Your task to perform on an android device: change keyboard looks Image 0: 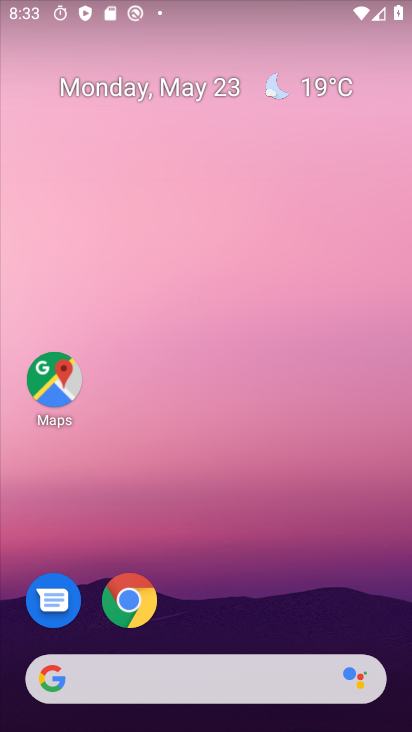
Step 0: drag from (28, 603) to (250, 134)
Your task to perform on an android device: change keyboard looks Image 1: 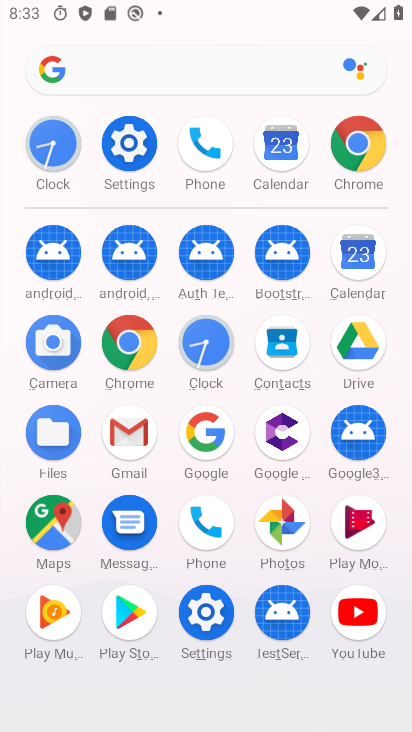
Step 1: click (138, 154)
Your task to perform on an android device: change keyboard looks Image 2: 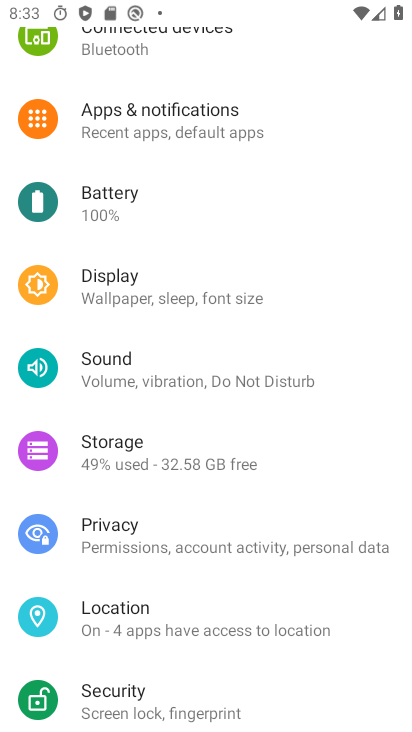
Step 2: drag from (60, 677) to (334, 123)
Your task to perform on an android device: change keyboard looks Image 3: 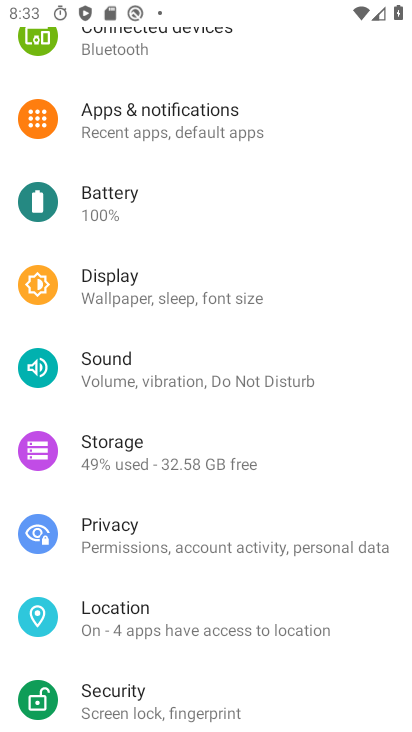
Step 3: drag from (144, 690) to (340, 203)
Your task to perform on an android device: change keyboard looks Image 4: 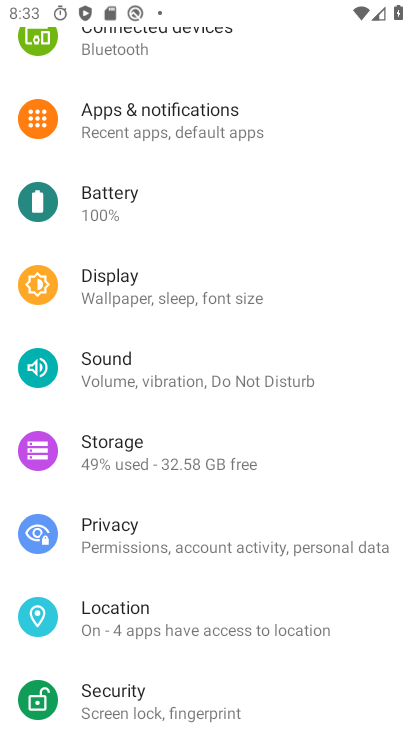
Step 4: drag from (118, 715) to (305, 152)
Your task to perform on an android device: change keyboard looks Image 5: 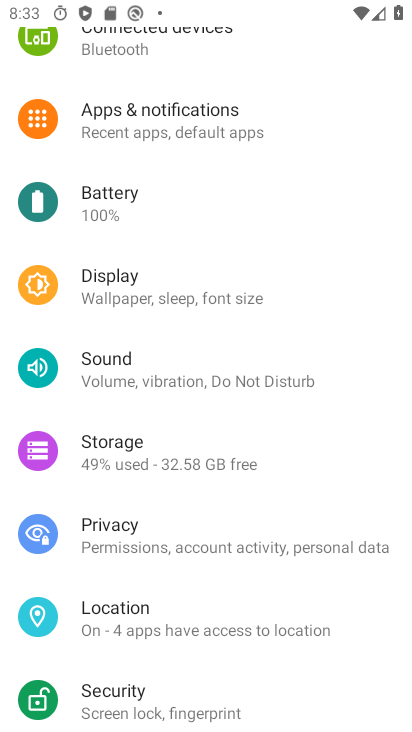
Step 5: drag from (277, 133) to (192, 556)
Your task to perform on an android device: change keyboard looks Image 6: 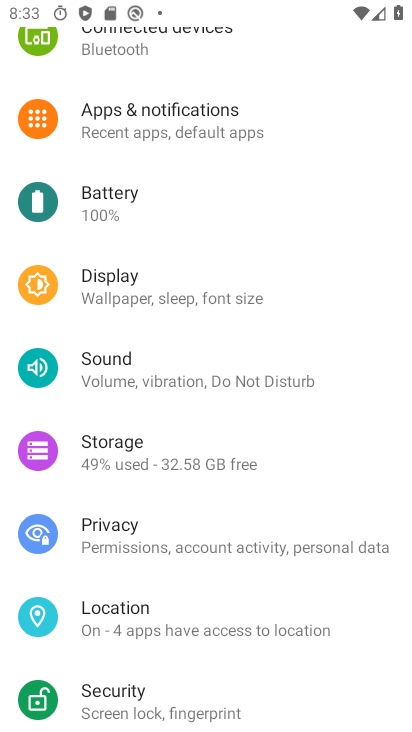
Step 6: drag from (130, 678) to (292, 170)
Your task to perform on an android device: change keyboard looks Image 7: 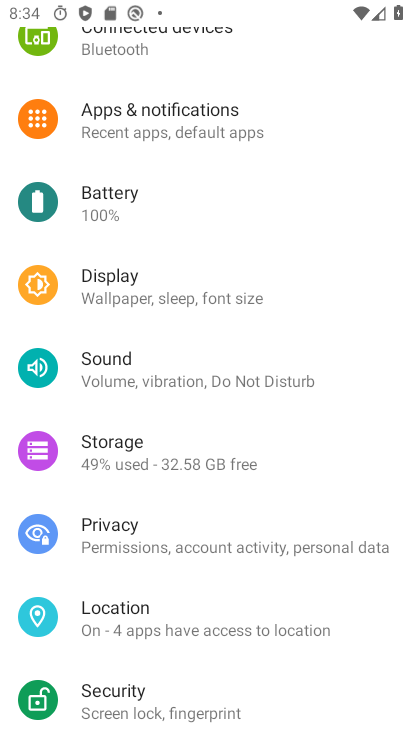
Step 7: drag from (19, 715) to (318, 135)
Your task to perform on an android device: change keyboard looks Image 8: 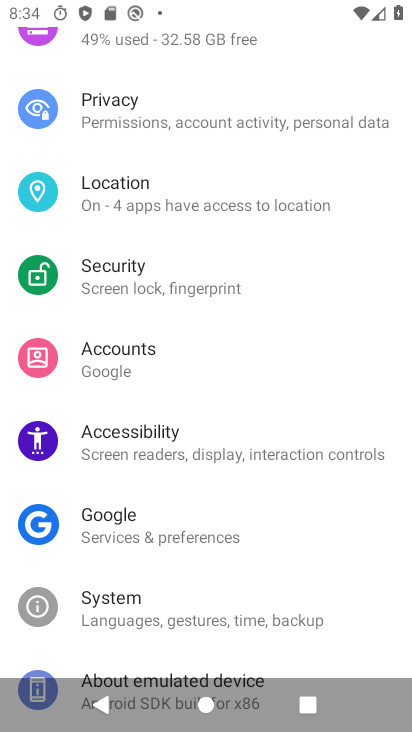
Step 8: click (136, 634)
Your task to perform on an android device: change keyboard looks Image 9: 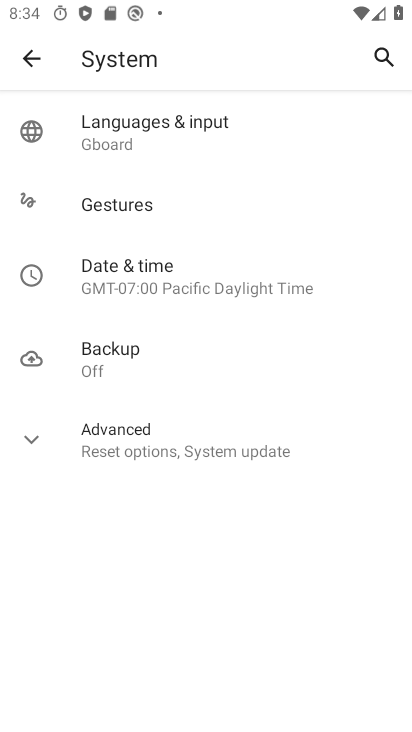
Step 9: click (208, 135)
Your task to perform on an android device: change keyboard looks Image 10: 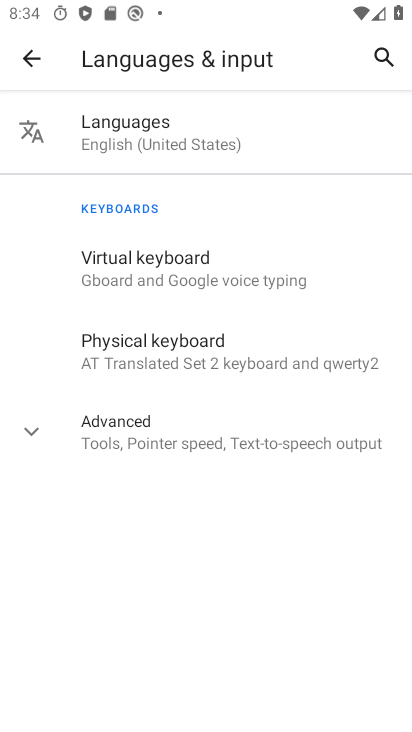
Step 10: click (196, 341)
Your task to perform on an android device: change keyboard looks Image 11: 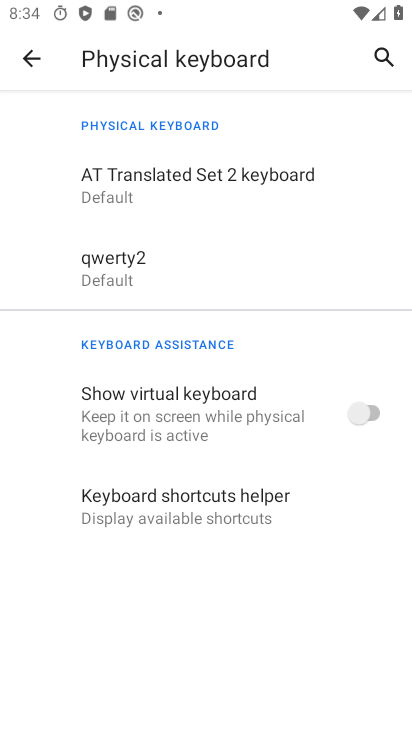
Step 11: press back button
Your task to perform on an android device: change keyboard looks Image 12: 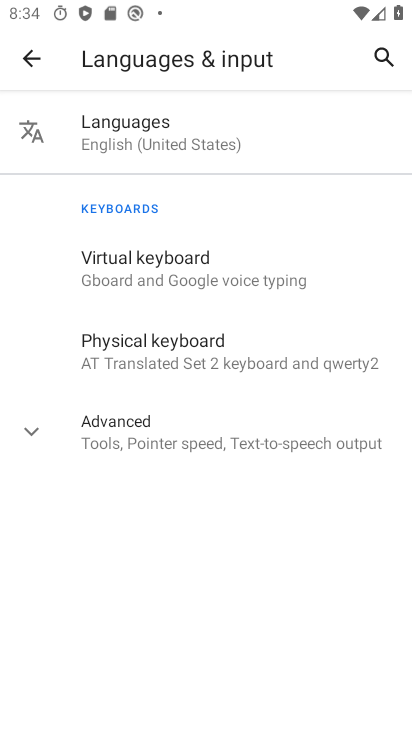
Step 12: click (209, 258)
Your task to perform on an android device: change keyboard looks Image 13: 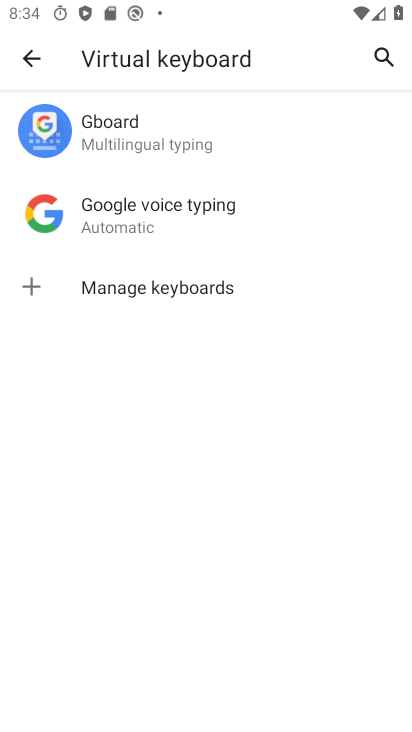
Step 13: click (194, 126)
Your task to perform on an android device: change keyboard looks Image 14: 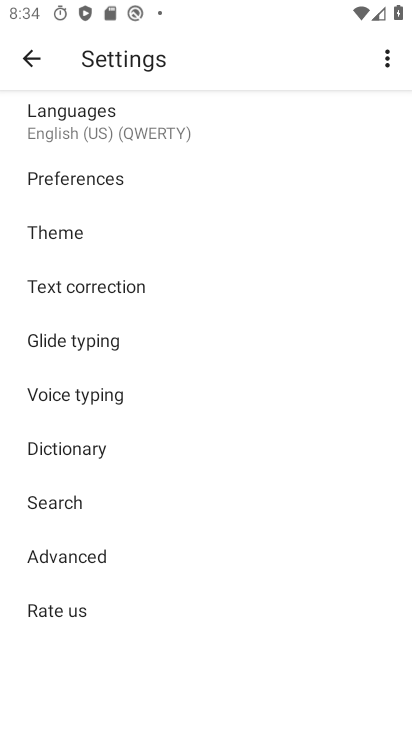
Step 14: task complete